Your task to perform on an android device: Go to wifi settings Image 0: 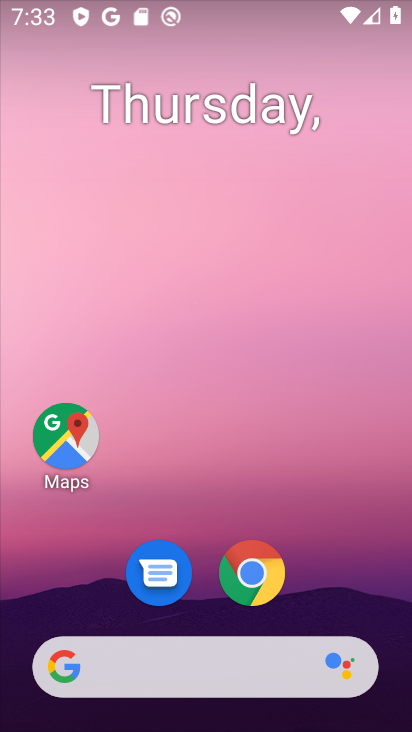
Step 0: drag from (325, 597) to (379, 264)
Your task to perform on an android device: Go to wifi settings Image 1: 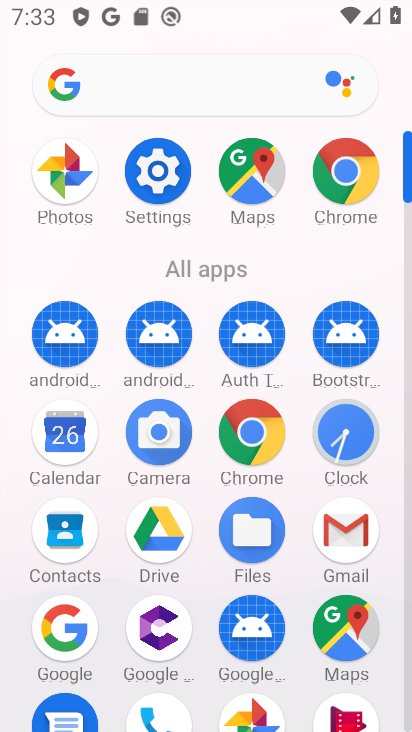
Step 1: click (165, 178)
Your task to perform on an android device: Go to wifi settings Image 2: 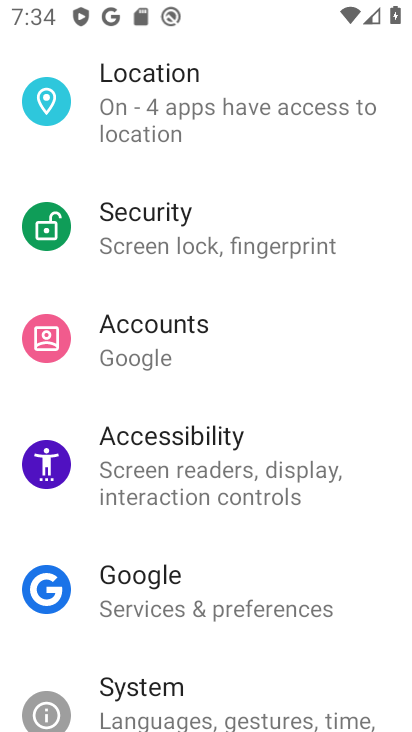
Step 2: drag from (238, 152) to (174, 482)
Your task to perform on an android device: Go to wifi settings Image 3: 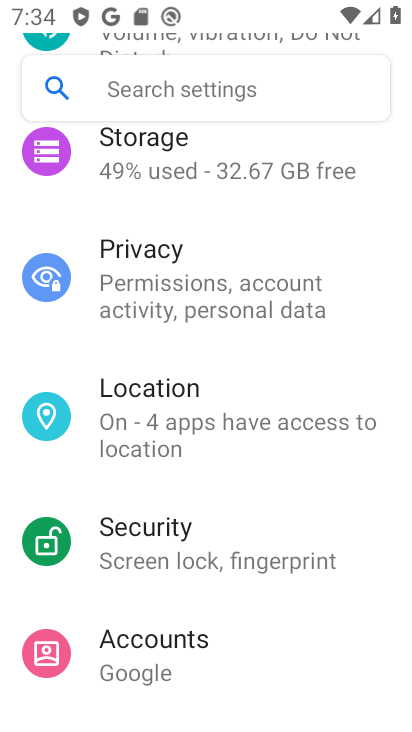
Step 3: drag from (217, 166) to (222, 598)
Your task to perform on an android device: Go to wifi settings Image 4: 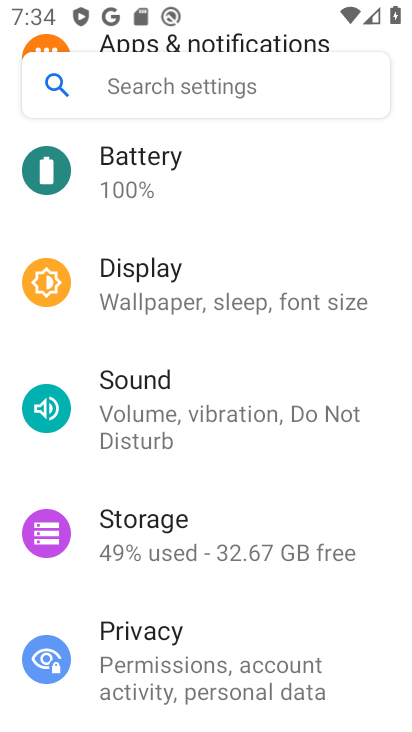
Step 4: drag from (275, 193) to (246, 525)
Your task to perform on an android device: Go to wifi settings Image 5: 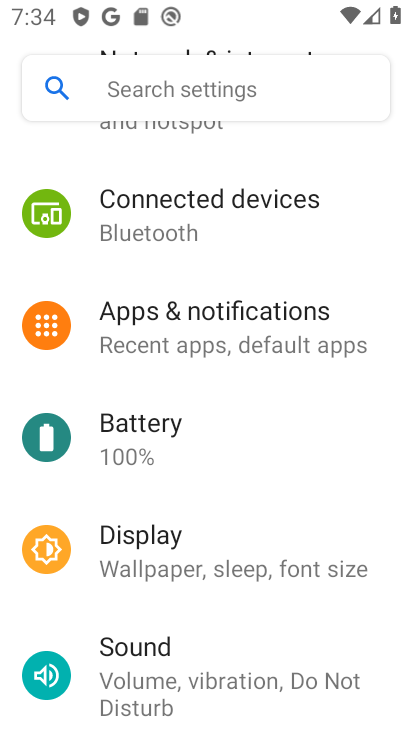
Step 5: drag from (247, 159) to (235, 667)
Your task to perform on an android device: Go to wifi settings Image 6: 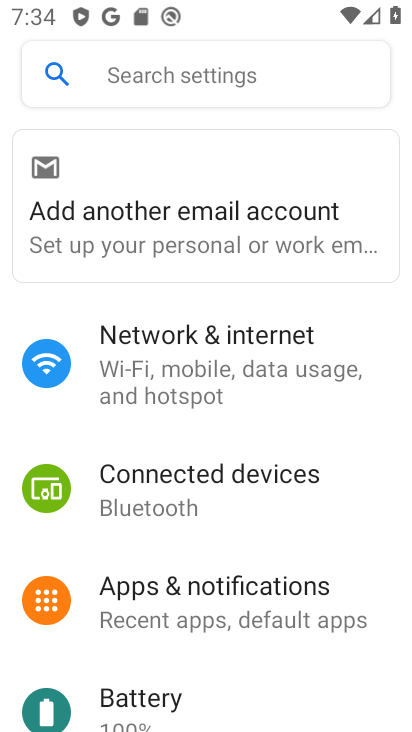
Step 6: click (246, 343)
Your task to perform on an android device: Go to wifi settings Image 7: 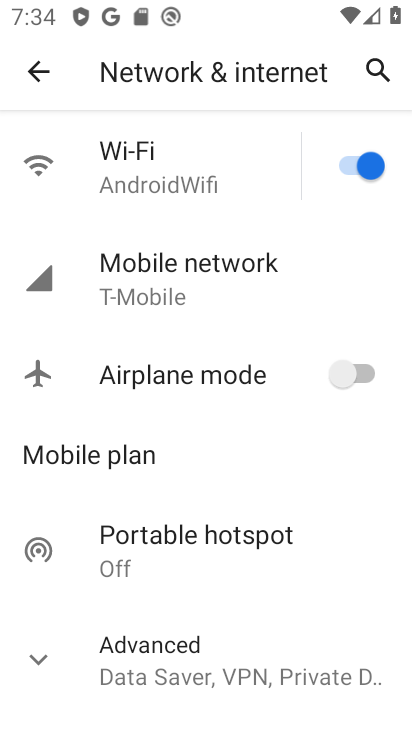
Step 7: click (177, 171)
Your task to perform on an android device: Go to wifi settings Image 8: 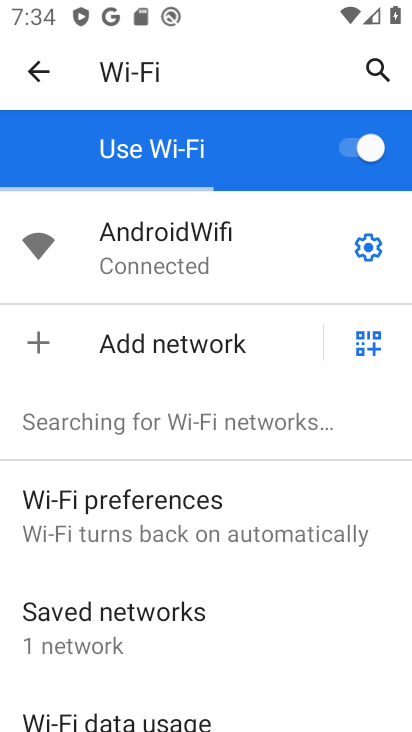
Step 8: click (370, 244)
Your task to perform on an android device: Go to wifi settings Image 9: 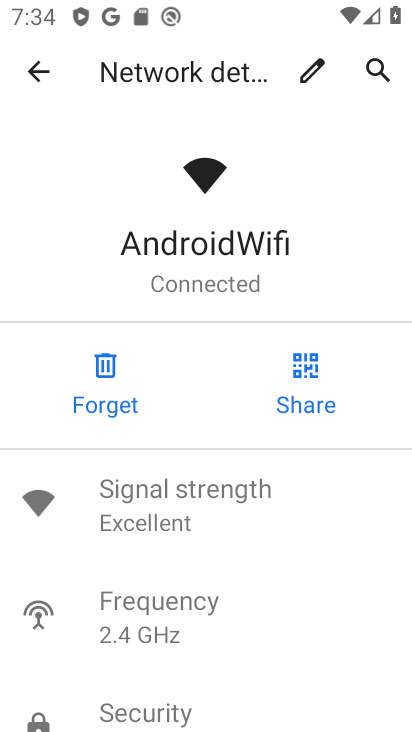
Step 9: task complete